Your task to perform on an android device: Go to Amazon Image 0: 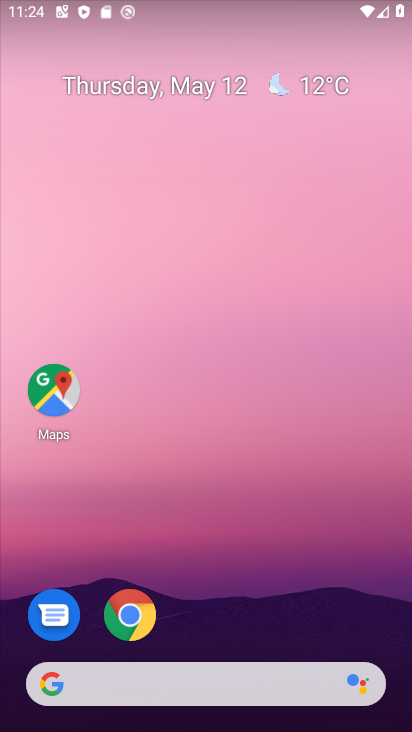
Step 0: click (148, 615)
Your task to perform on an android device: Go to Amazon Image 1: 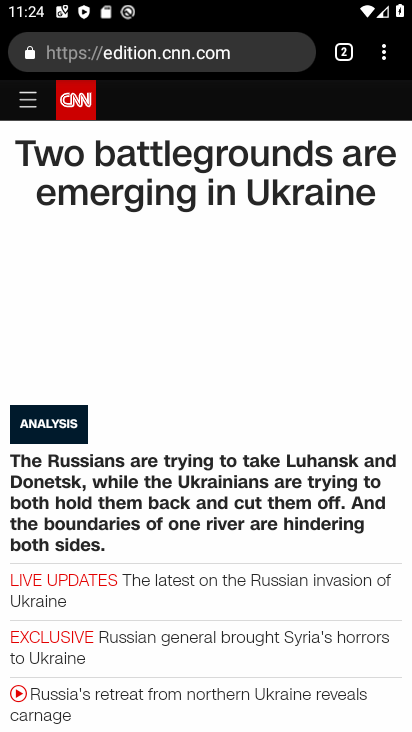
Step 1: click (334, 48)
Your task to perform on an android device: Go to Amazon Image 2: 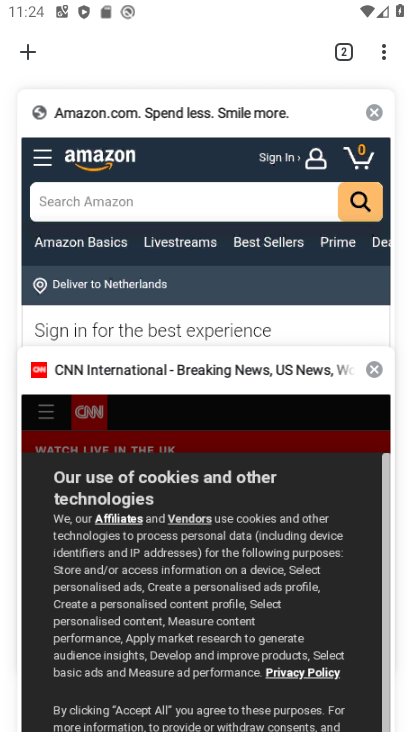
Step 2: click (92, 146)
Your task to perform on an android device: Go to Amazon Image 3: 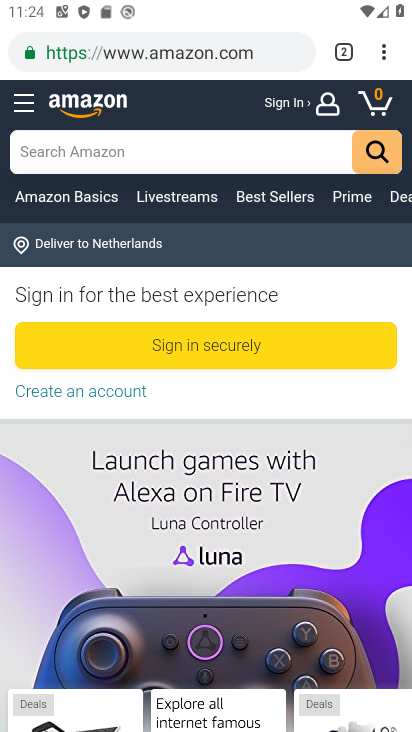
Step 3: task complete